Your task to perform on an android device: allow notifications from all sites in the chrome app Image 0: 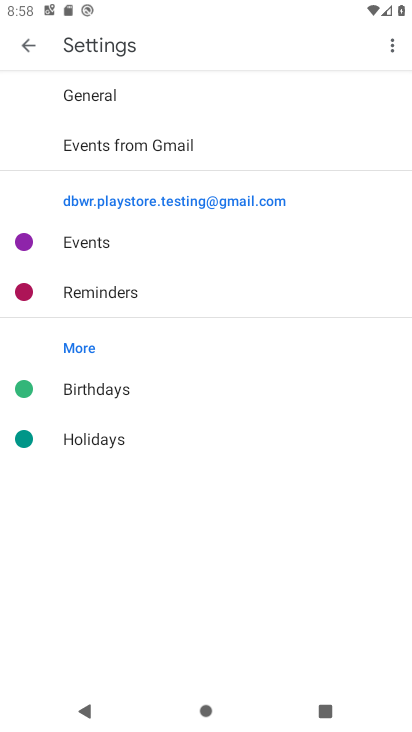
Step 0: press home button
Your task to perform on an android device: allow notifications from all sites in the chrome app Image 1: 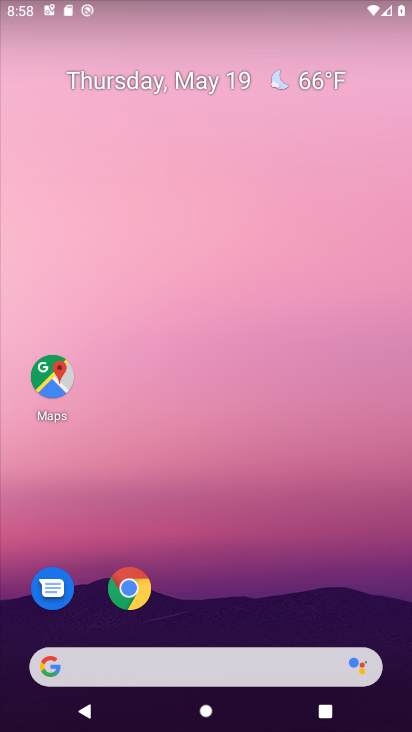
Step 1: drag from (366, 595) to (365, 228)
Your task to perform on an android device: allow notifications from all sites in the chrome app Image 2: 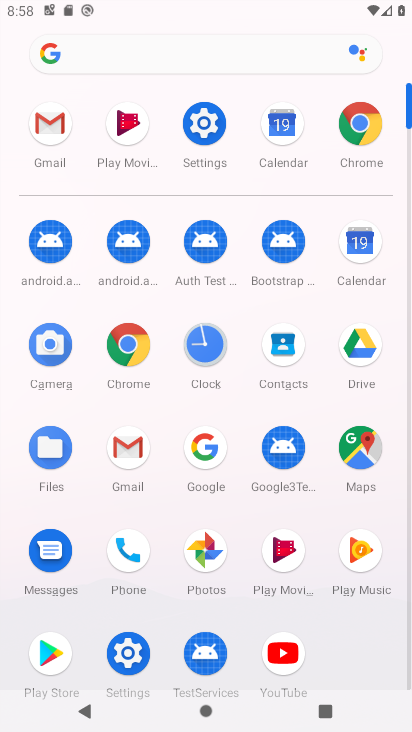
Step 2: click (135, 353)
Your task to perform on an android device: allow notifications from all sites in the chrome app Image 3: 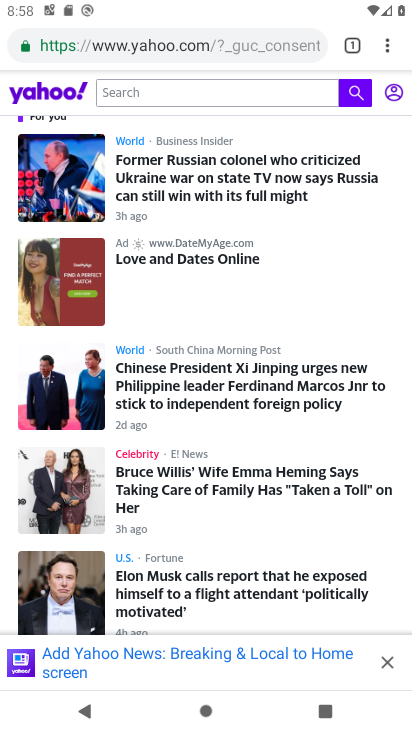
Step 3: click (388, 52)
Your task to perform on an android device: allow notifications from all sites in the chrome app Image 4: 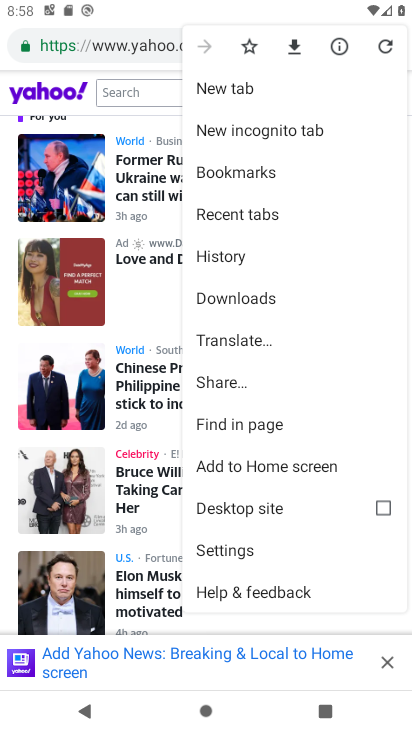
Step 4: drag from (335, 333) to (348, 255)
Your task to perform on an android device: allow notifications from all sites in the chrome app Image 5: 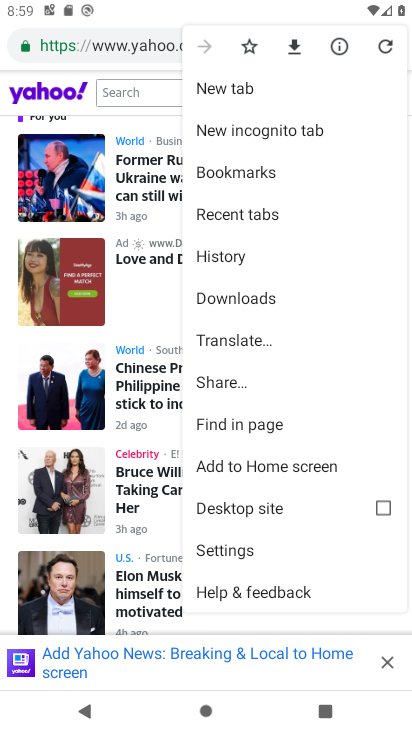
Step 5: click (264, 550)
Your task to perform on an android device: allow notifications from all sites in the chrome app Image 6: 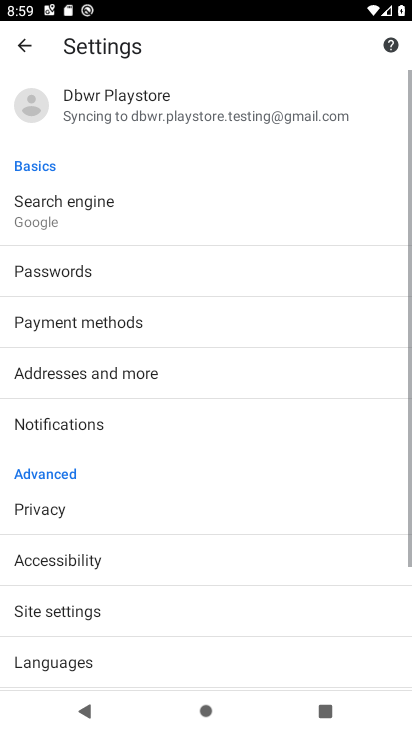
Step 6: drag from (265, 580) to (283, 463)
Your task to perform on an android device: allow notifications from all sites in the chrome app Image 7: 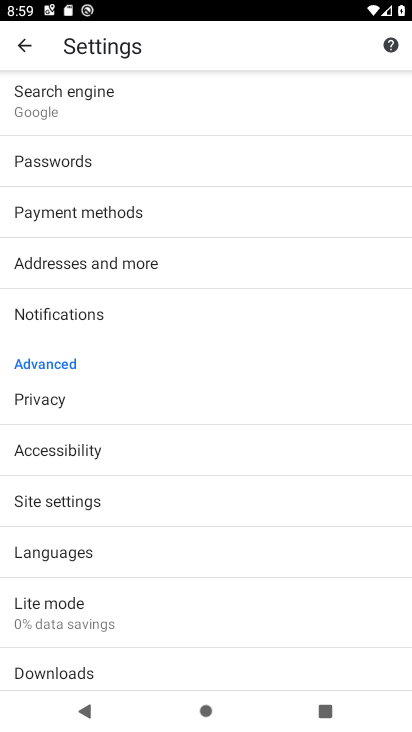
Step 7: drag from (295, 542) to (307, 403)
Your task to perform on an android device: allow notifications from all sites in the chrome app Image 8: 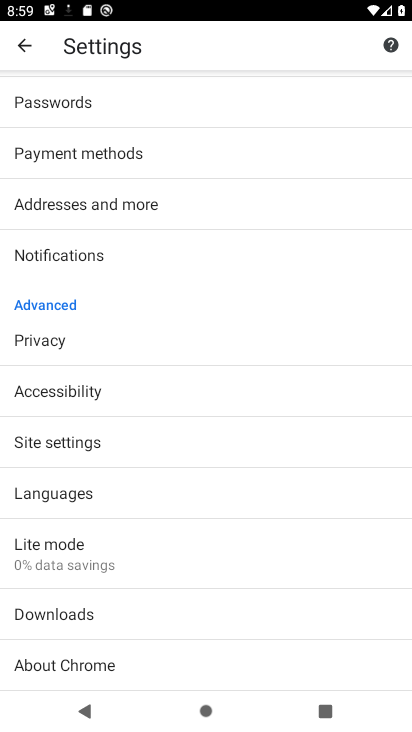
Step 8: drag from (307, 516) to (312, 408)
Your task to perform on an android device: allow notifications from all sites in the chrome app Image 9: 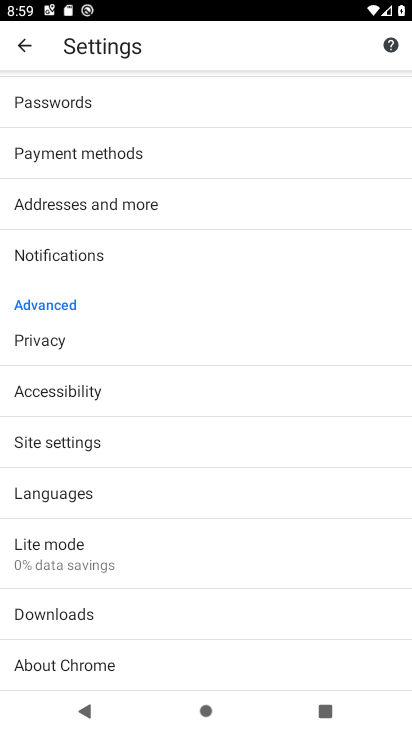
Step 9: drag from (316, 340) to (307, 429)
Your task to perform on an android device: allow notifications from all sites in the chrome app Image 10: 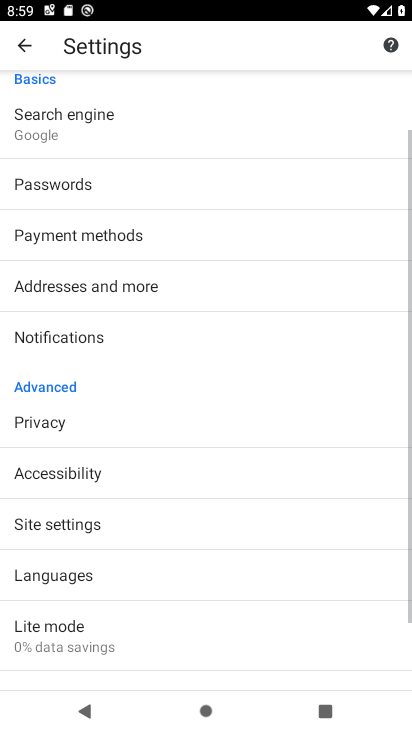
Step 10: drag from (319, 296) to (320, 341)
Your task to perform on an android device: allow notifications from all sites in the chrome app Image 11: 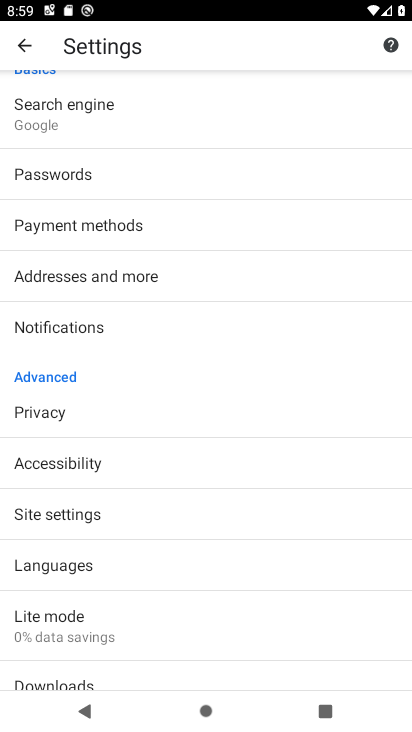
Step 11: click (273, 508)
Your task to perform on an android device: allow notifications from all sites in the chrome app Image 12: 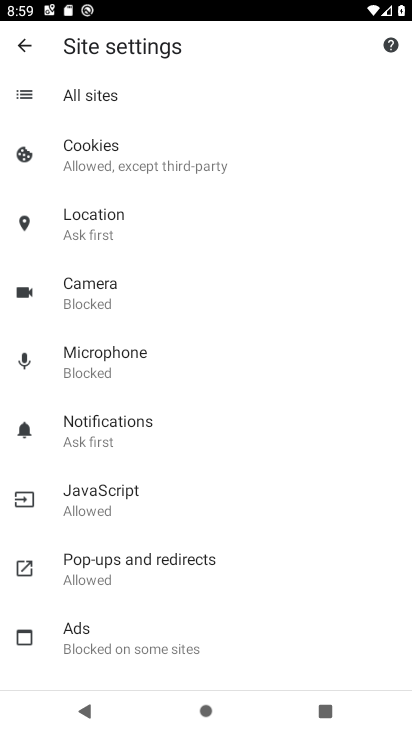
Step 12: drag from (288, 553) to (300, 425)
Your task to perform on an android device: allow notifications from all sites in the chrome app Image 13: 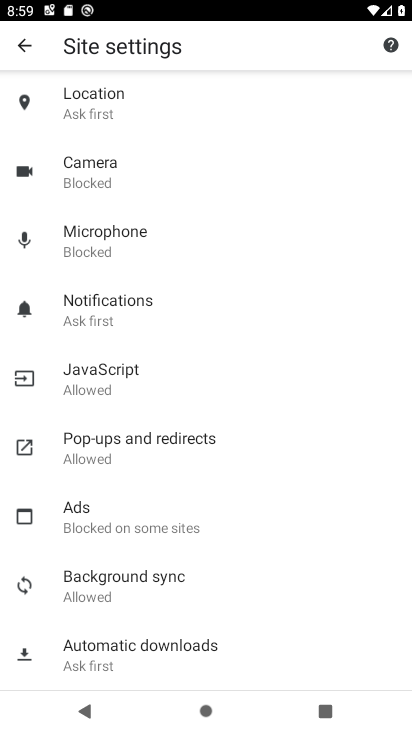
Step 13: drag from (327, 601) to (348, 468)
Your task to perform on an android device: allow notifications from all sites in the chrome app Image 14: 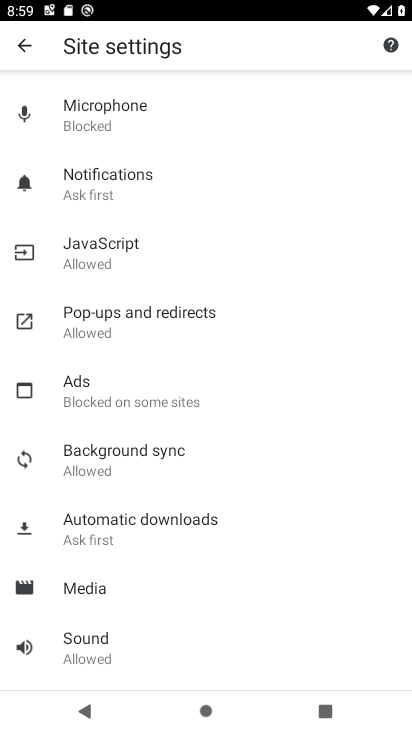
Step 14: click (335, 522)
Your task to perform on an android device: allow notifications from all sites in the chrome app Image 15: 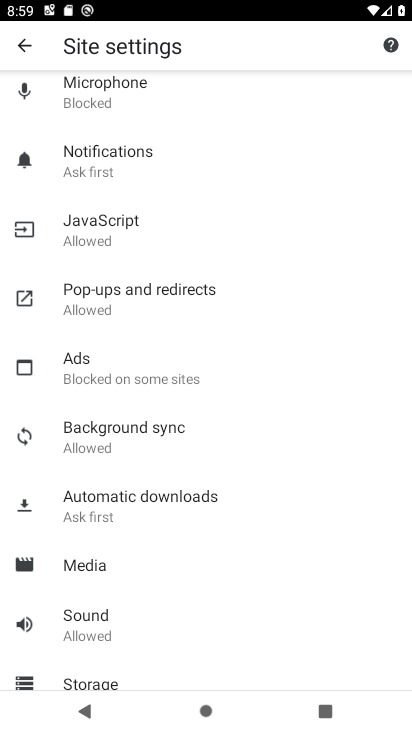
Step 15: drag from (331, 360) to (321, 456)
Your task to perform on an android device: allow notifications from all sites in the chrome app Image 16: 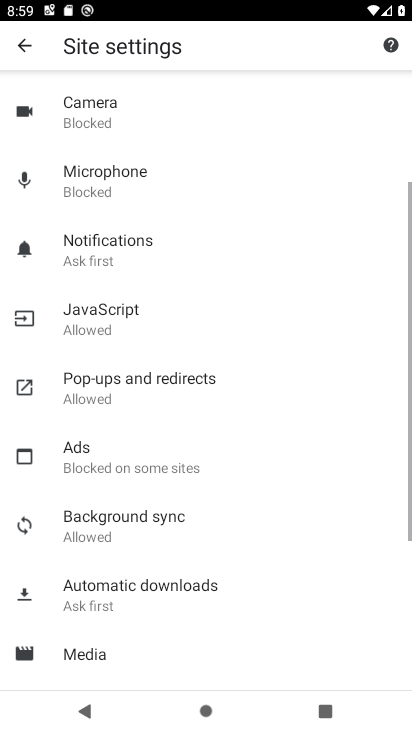
Step 16: drag from (325, 313) to (323, 472)
Your task to perform on an android device: allow notifications from all sites in the chrome app Image 17: 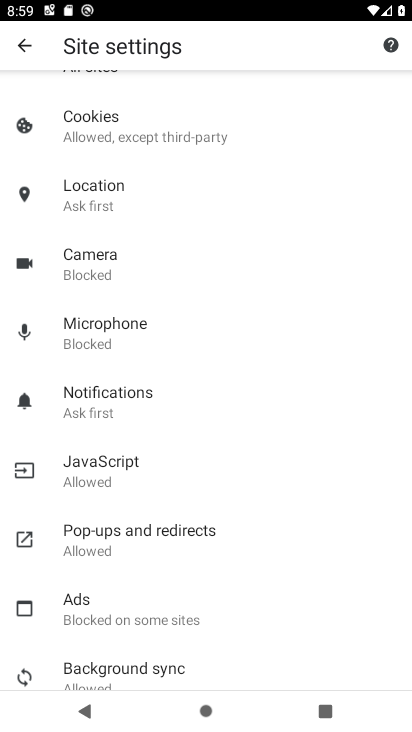
Step 17: drag from (319, 281) to (299, 455)
Your task to perform on an android device: allow notifications from all sites in the chrome app Image 18: 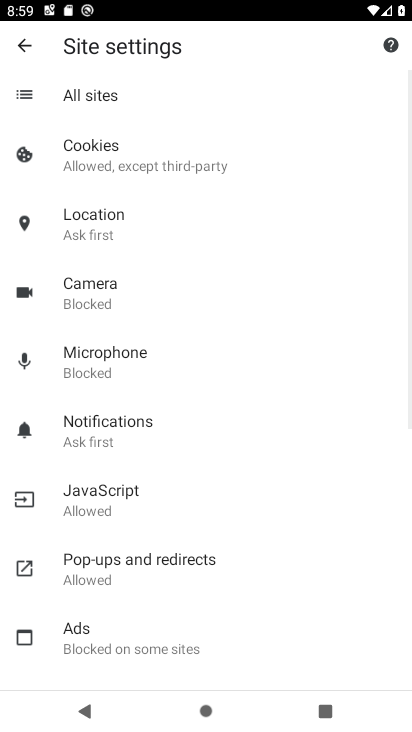
Step 18: drag from (315, 277) to (299, 445)
Your task to perform on an android device: allow notifications from all sites in the chrome app Image 19: 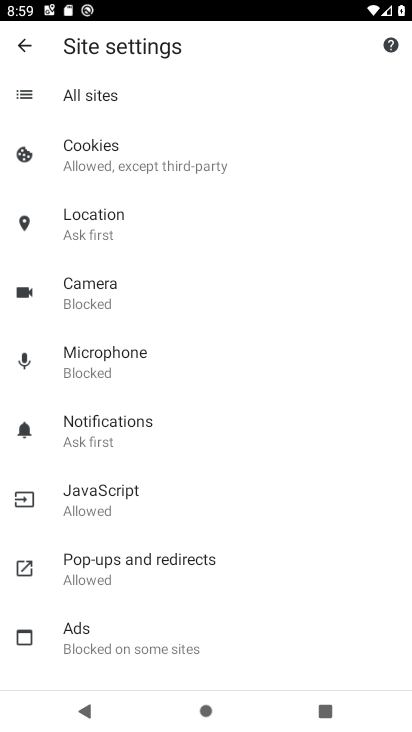
Step 19: click (152, 424)
Your task to perform on an android device: allow notifications from all sites in the chrome app Image 20: 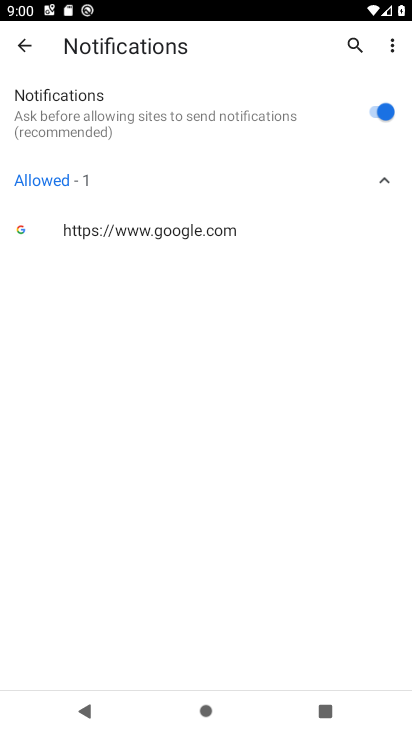
Step 20: task complete